Your task to perform on an android device: Open ESPN.com Image 0: 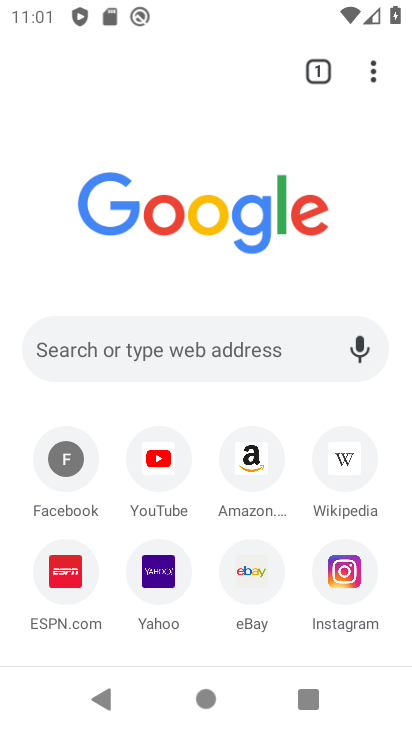
Step 0: press home button
Your task to perform on an android device: Open ESPN.com Image 1: 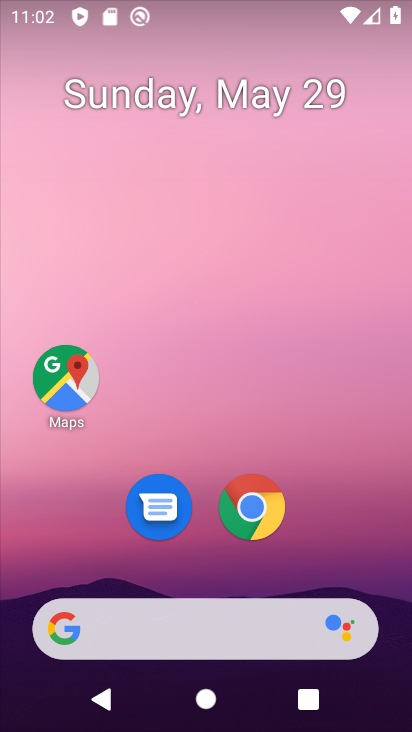
Step 1: click (285, 513)
Your task to perform on an android device: Open ESPN.com Image 2: 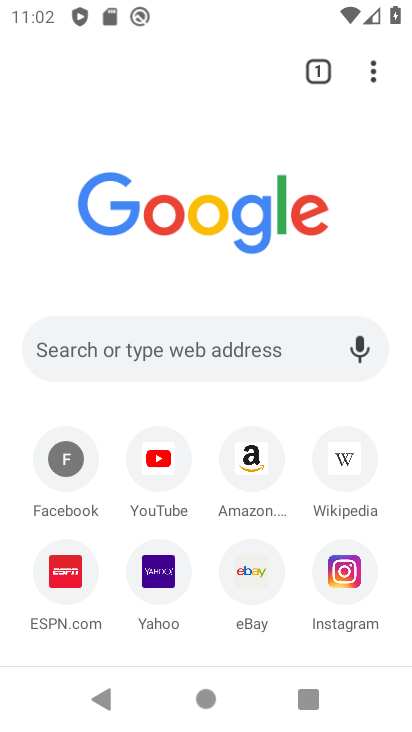
Step 2: click (82, 568)
Your task to perform on an android device: Open ESPN.com Image 3: 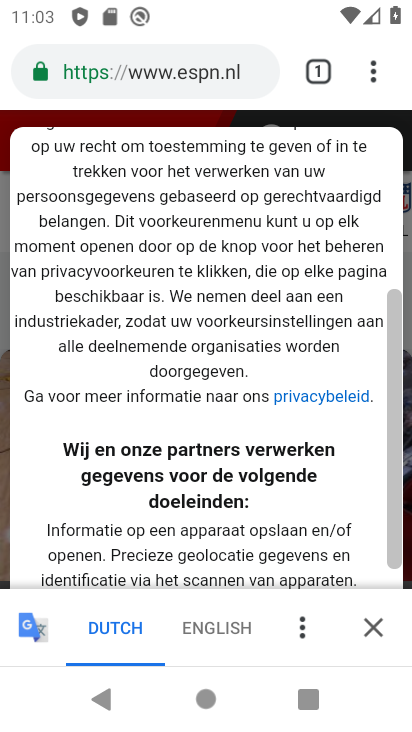
Step 3: click (378, 66)
Your task to perform on an android device: Open ESPN.com Image 4: 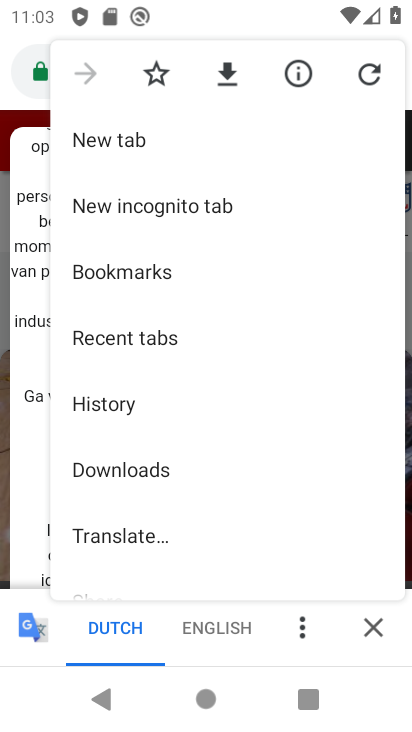
Step 4: click (128, 138)
Your task to perform on an android device: Open ESPN.com Image 5: 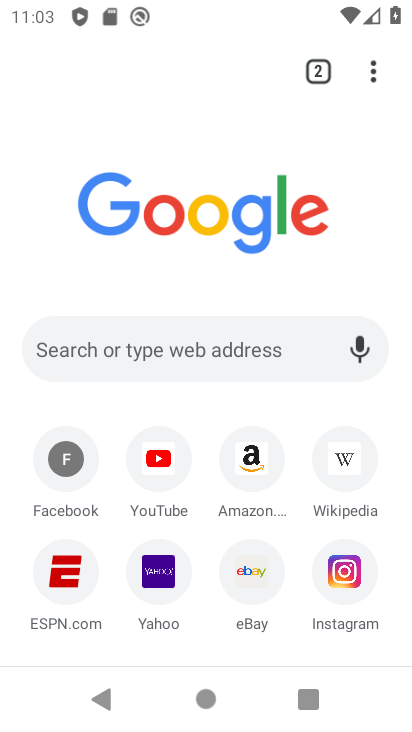
Step 5: click (76, 582)
Your task to perform on an android device: Open ESPN.com Image 6: 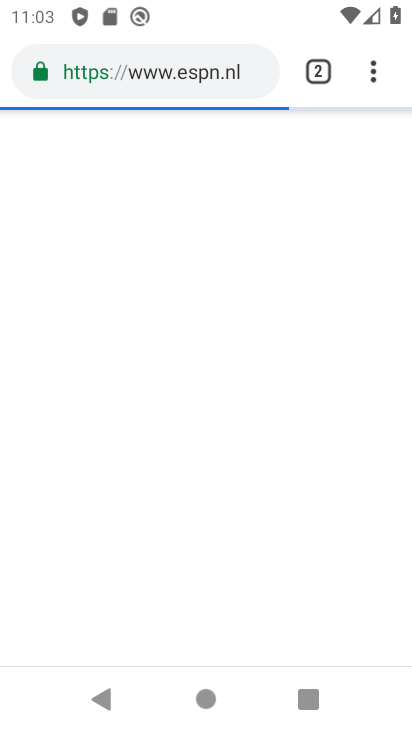
Step 6: task complete